Your task to perform on an android device: change the clock display to show seconds Image 0: 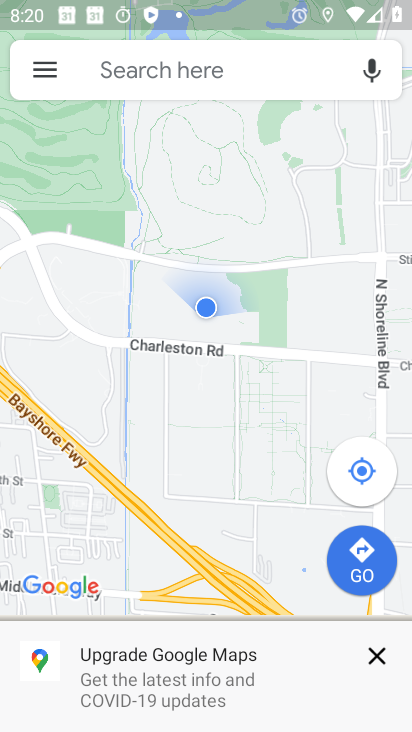
Step 0: press home button
Your task to perform on an android device: change the clock display to show seconds Image 1: 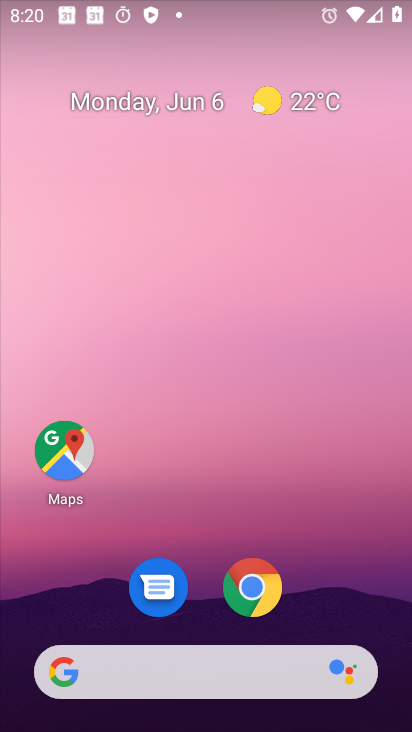
Step 1: drag from (210, 652) to (210, 299)
Your task to perform on an android device: change the clock display to show seconds Image 2: 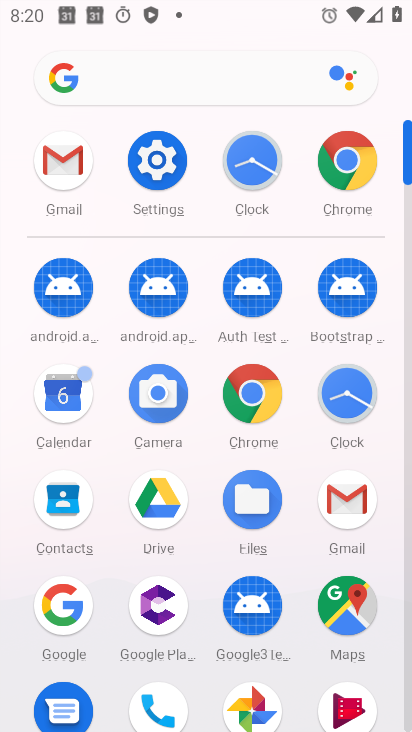
Step 2: click (253, 163)
Your task to perform on an android device: change the clock display to show seconds Image 3: 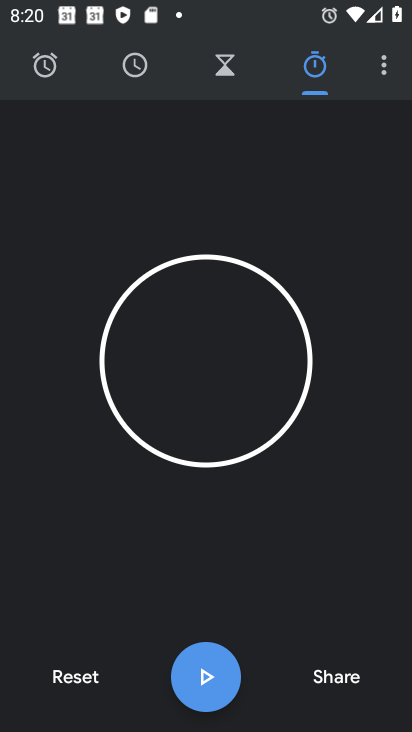
Step 3: click (390, 66)
Your task to perform on an android device: change the clock display to show seconds Image 4: 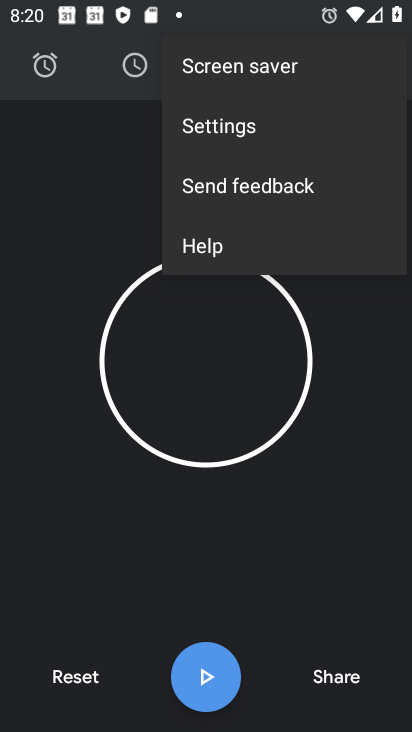
Step 4: click (223, 134)
Your task to perform on an android device: change the clock display to show seconds Image 5: 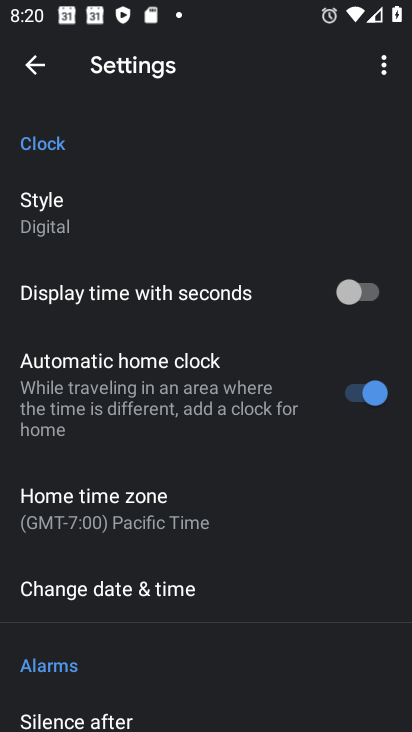
Step 5: click (363, 289)
Your task to perform on an android device: change the clock display to show seconds Image 6: 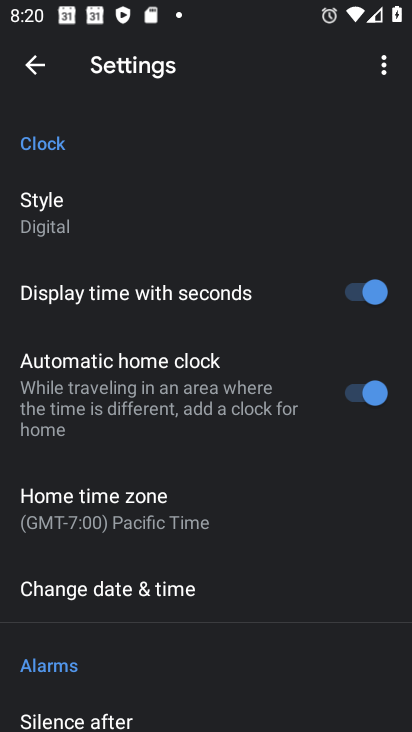
Step 6: task complete